Your task to perform on an android device: change notification settings in the gmail app Image 0: 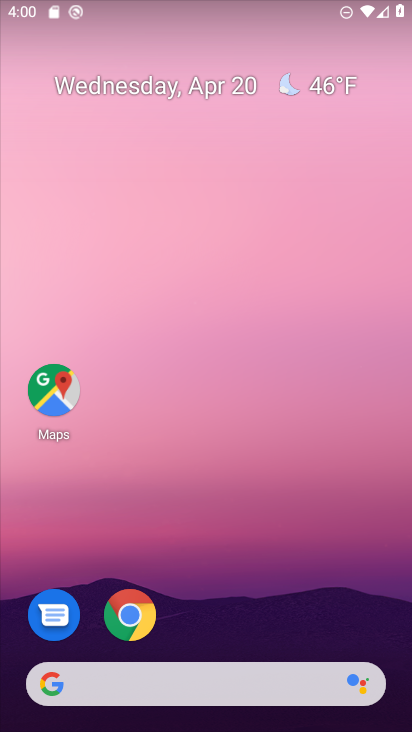
Step 0: drag from (225, 476) to (319, 2)
Your task to perform on an android device: change notification settings in the gmail app Image 1: 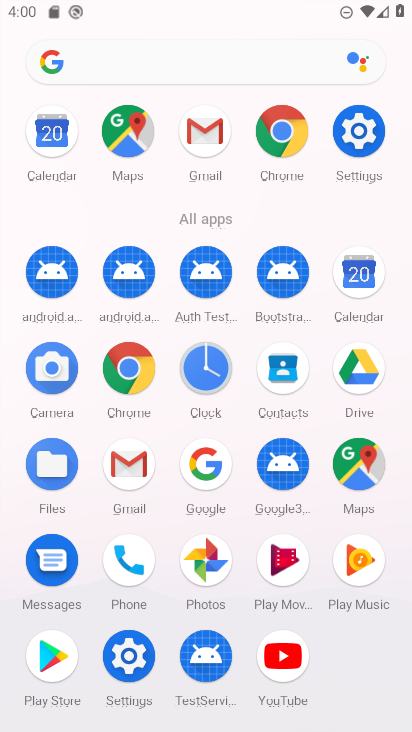
Step 1: click (209, 122)
Your task to perform on an android device: change notification settings in the gmail app Image 2: 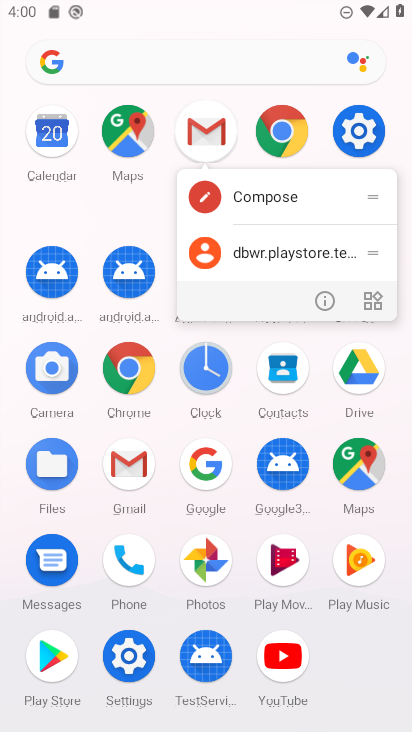
Step 2: click (322, 299)
Your task to perform on an android device: change notification settings in the gmail app Image 3: 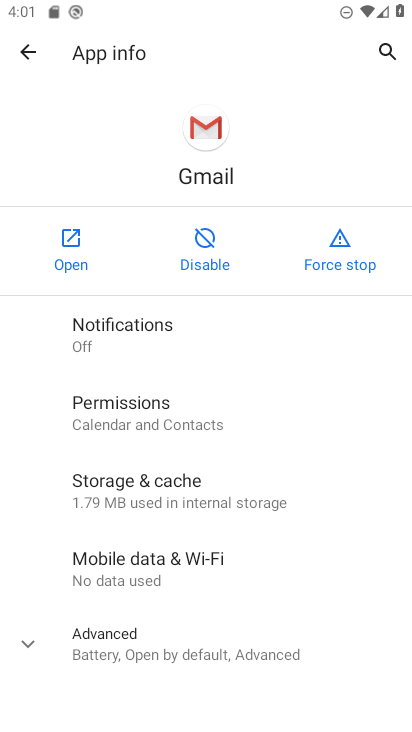
Step 3: click (80, 343)
Your task to perform on an android device: change notification settings in the gmail app Image 4: 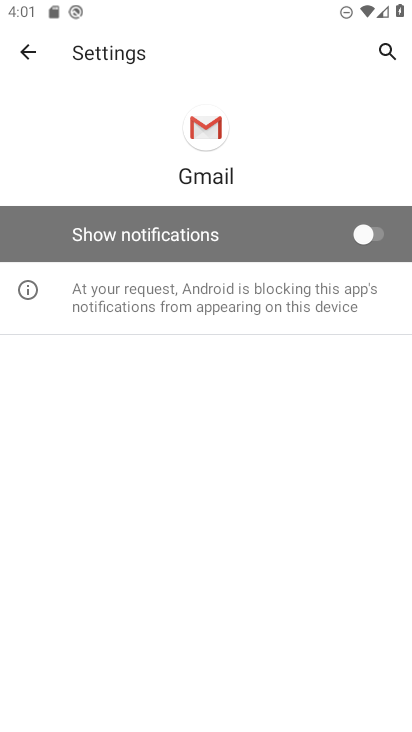
Step 4: click (361, 216)
Your task to perform on an android device: change notification settings in the gmail app Image 5: 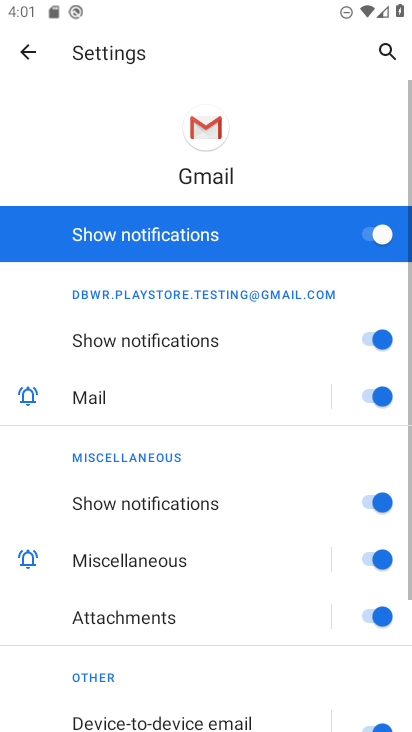
Step 5: task complete